Your task to perform on an android device: move a message to another label in the gmail app Image 0: 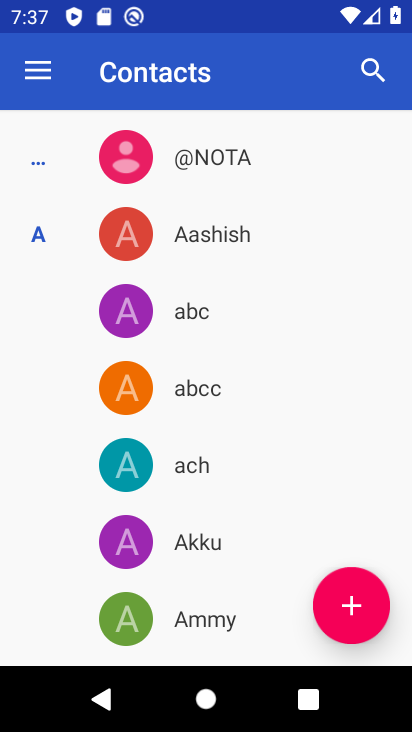
Step 0: press home button
Your task to perform on an android device: move a message to another label in the gmail app Image 1: 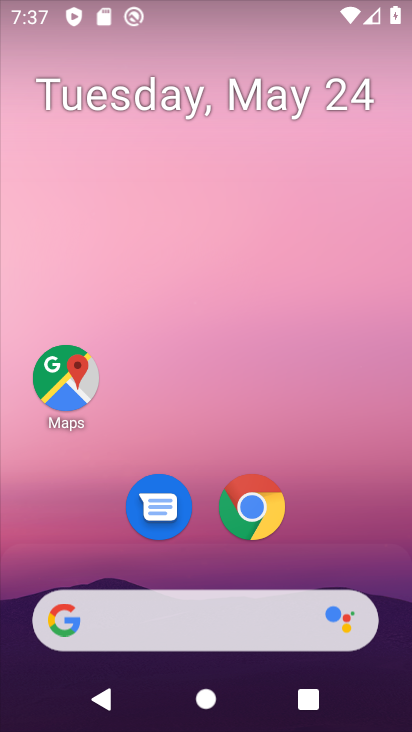
Step 1: drag from (216, 607) to (389, 39)
Your task to perform on an android device: move a message to another label in the gmail app Image 2: 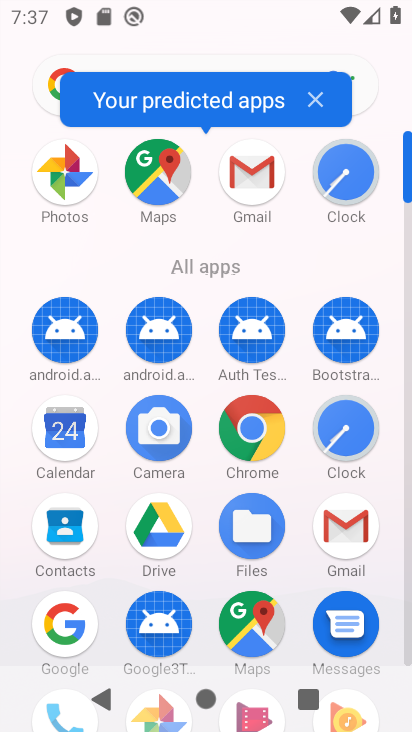
Step 2: click (257, 190)
Your task to perform on an android device: move a message to another label in the gmail app Image 3: 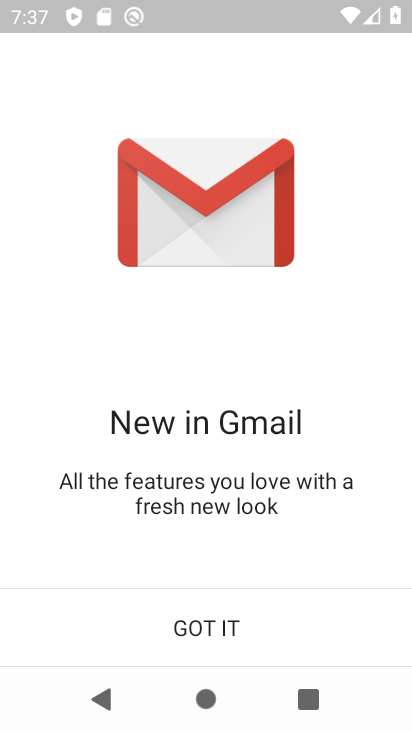
Step 3: click (218, 624)
Your task to perform on an android device: move a message to another label in the gmail app Image 4: 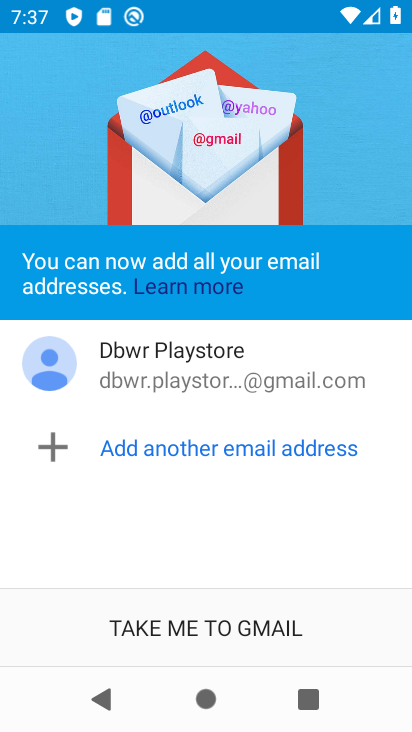
Step 4: click (217, 624)
Your task to perform on an android device: move a message to another label in the gmail app Image 5: 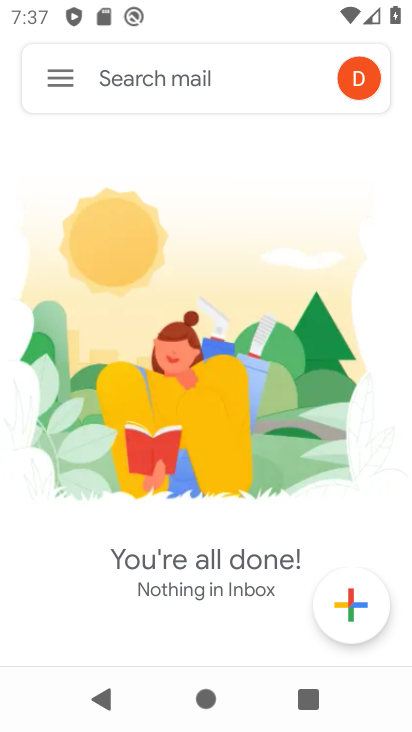
Step 5: task complete